Your task to perform on an android device: see creations saved in the google photos Image 0: 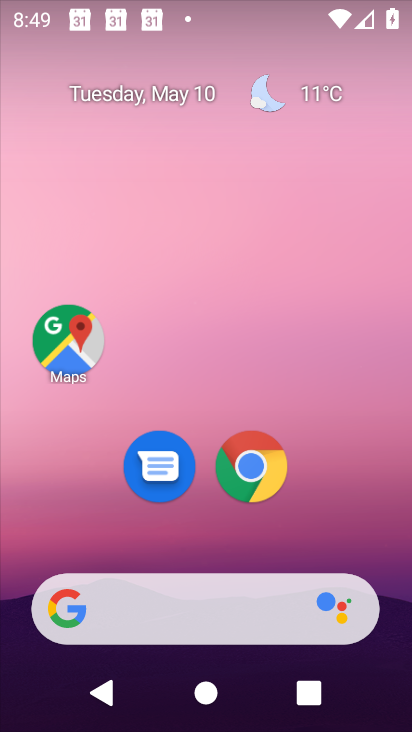
Step 0: drag from (196, 559) to (252, 10)
Your task to perform on an android device: see creations saved in the google photos Image 1: 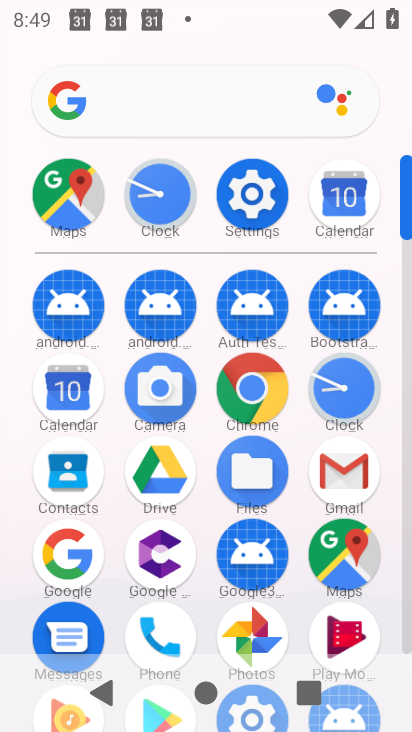
Step 1: click (257, 619)
Your task to perform on an android device: see creations saved in the google photos Image 2: 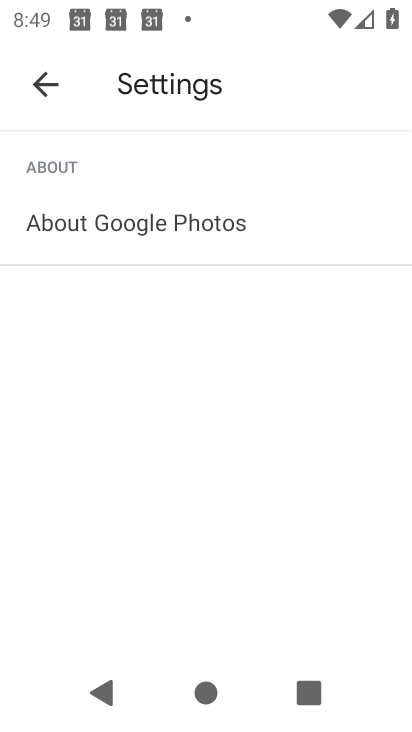
Step 2: click (45, 95)
Your task to perform on an android device: see creations saved in the google photos Image 3: 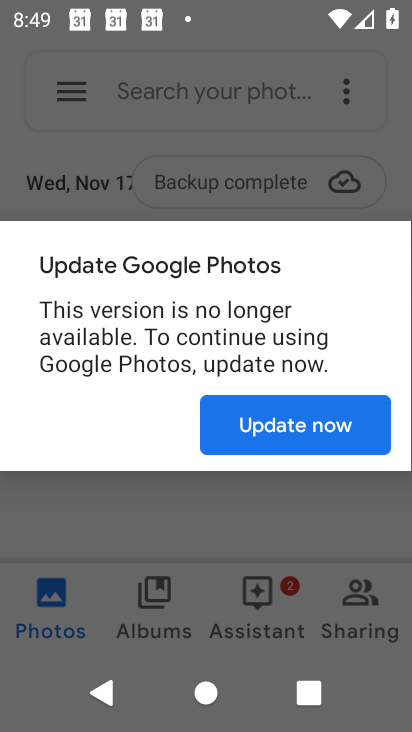
Step 3: click (258, 435)
Your task to perform on an android device: see creations saved in the google photos Image 4: 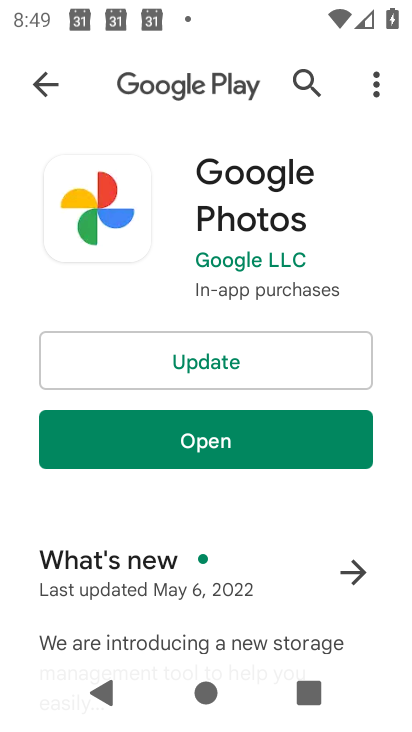
Step 4: click (235, 457)
Your task to perform on an android device: see creations saved in the google photos Image 5: 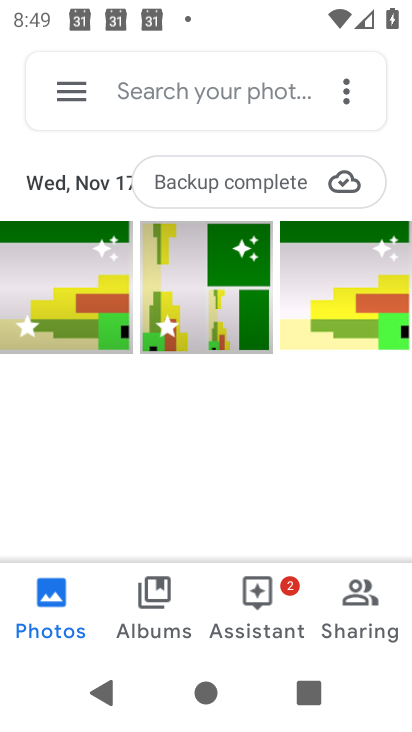
Step 5: click (212, 97)
Your task to perform on an android device: see creations saved in the google photos Image 6: 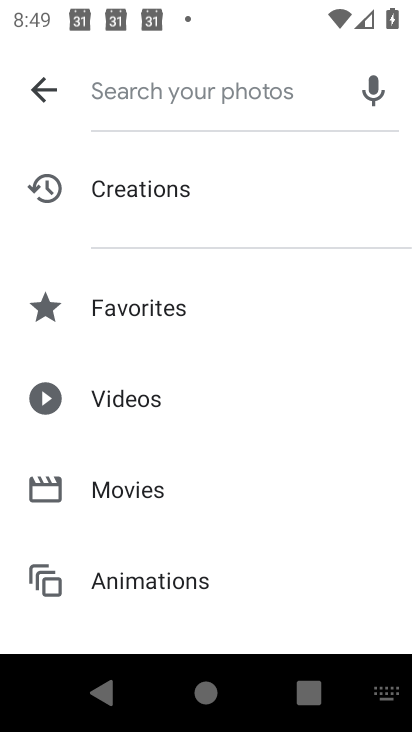
Step 6: click (167, 193)
Your task to perform on an android device: see creations saved in the google photos Image 7: 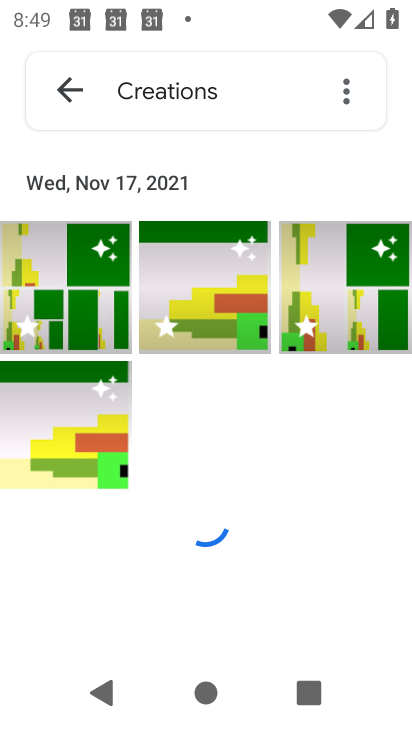
Step 7: task complete